Your task to perform on an android device: clear history in the chrome app Image 0: 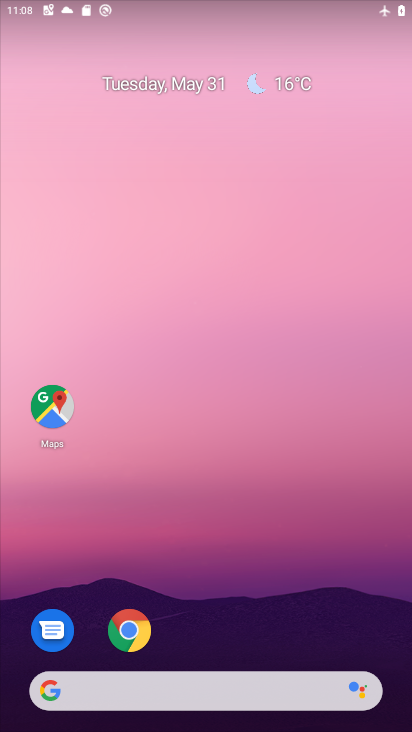
Step 0: click (126, 630)
Your task to perform on an android device: clear history in the chrome app Image 1: 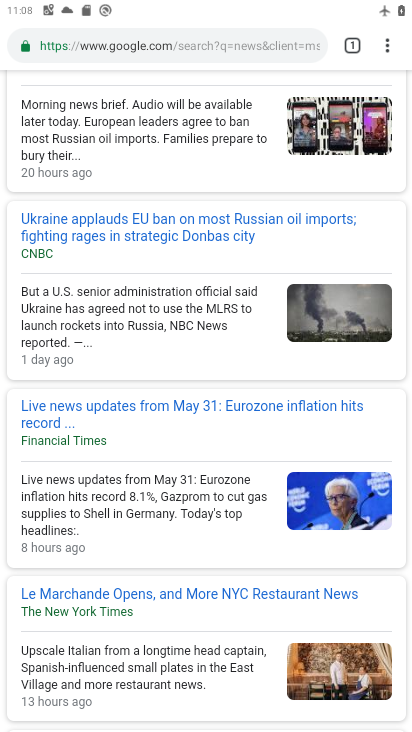
Step 1: click (385, 38)
Your task to perform on an android device: clear history in the chrome app Image 2: 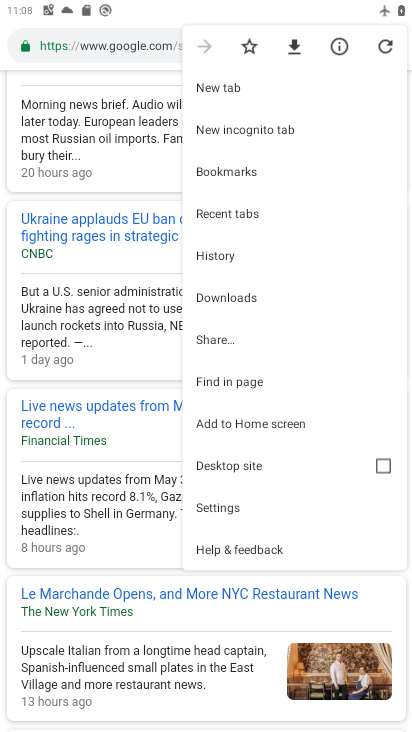
Step 2: click (207, 249)
Your task to perform on an android device: clear history in the chrome app Image 3: 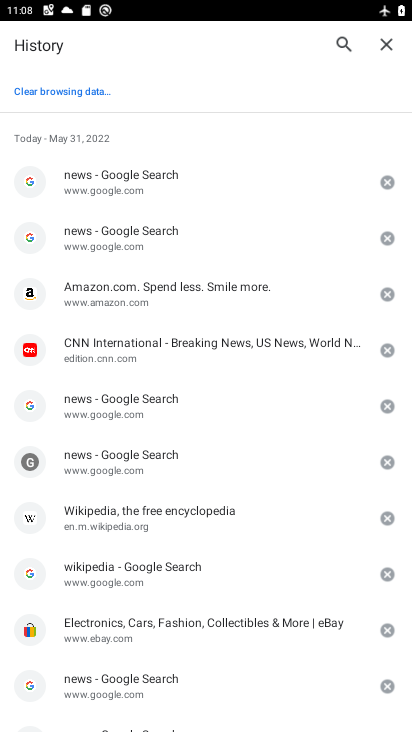
Step 3: click (71, 95)
Your task to perform on an android device: clear history in the chrome app Image 4: 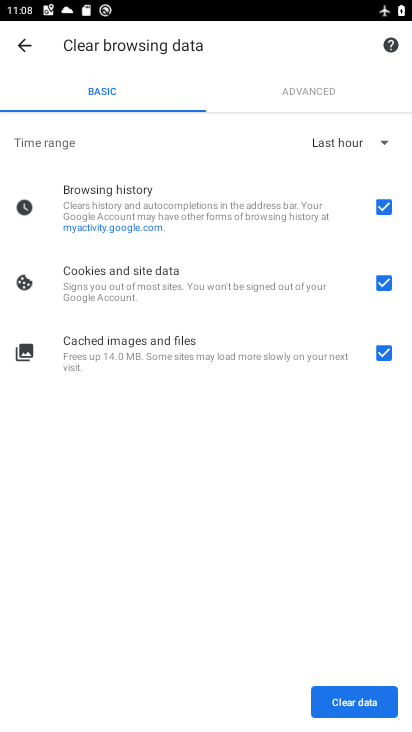
Step 4: click (327, 143)
Your task to perform on an android device: clear history in the chrome app Image 5: 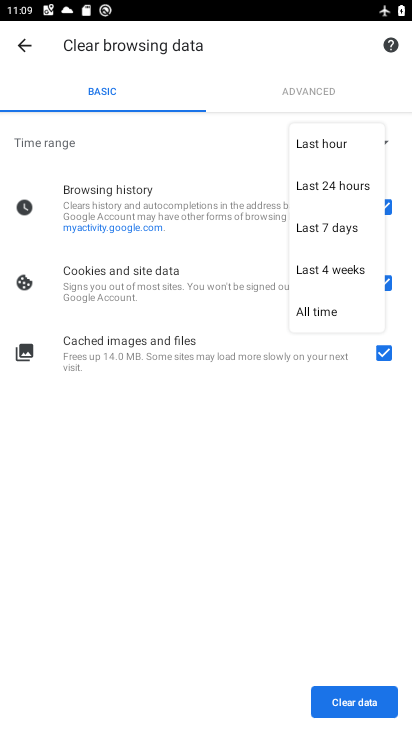
Step 5: click (337, 303)
Your task to perform on an android device: clear history in the chrome app Image 6: 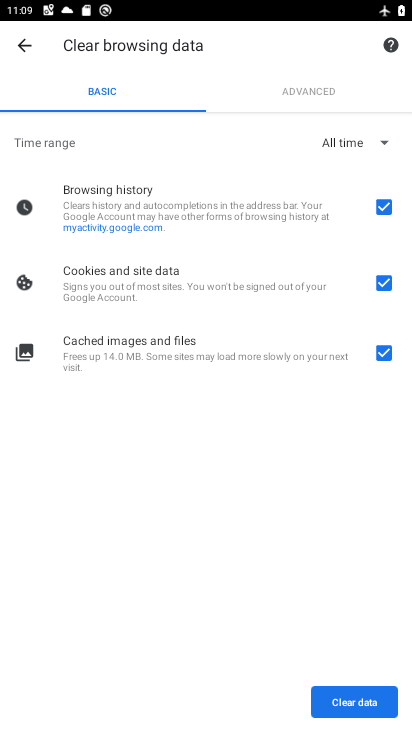
Step 6: click (355, 694)
Your task to perform on an android device: clear history in the chrome app Image 7: 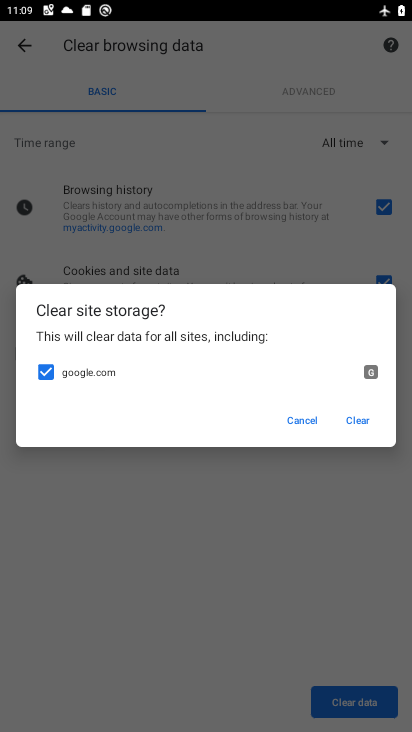
Step 7: click (353, 422)
Your task to perform on an android device: clear history in the chrome app Image 8: 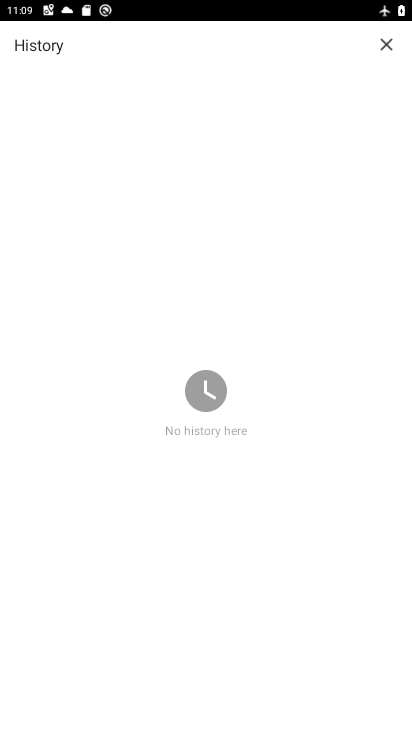
Step 8: task complete